Your task to perform on an android device: all mails in gmail Image 0: 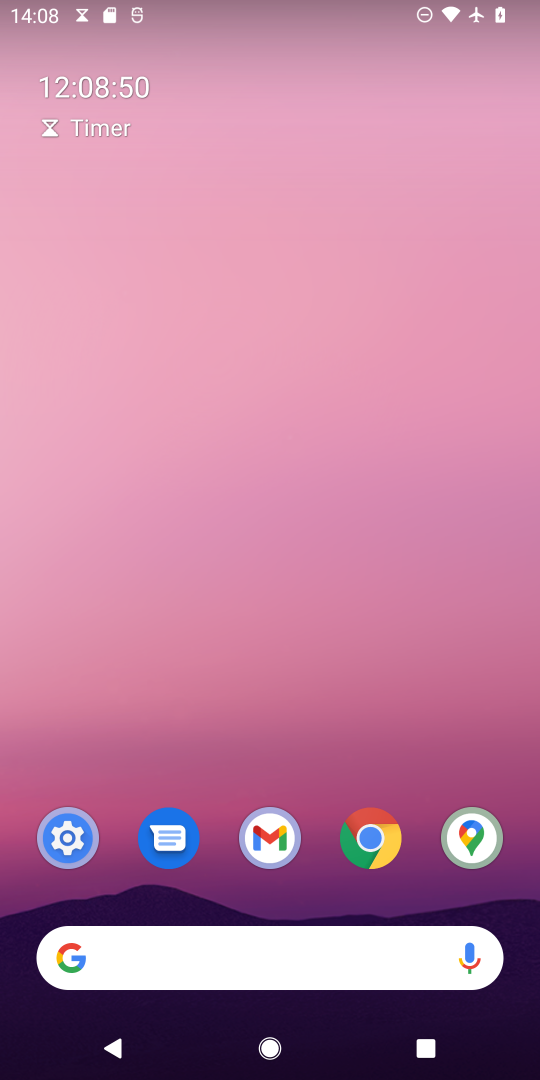
Step 0: press home button
Your task to perform on an android device: all mails in gmail Image 1: 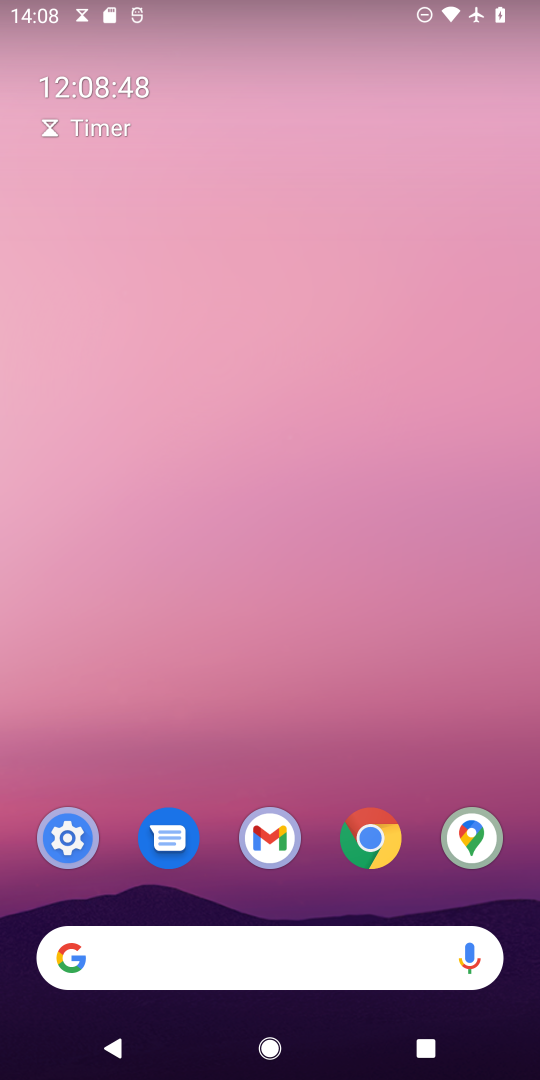
Step 1: click (272, 842)
Your task to perform on an android device: all mails in gmail Image 2: 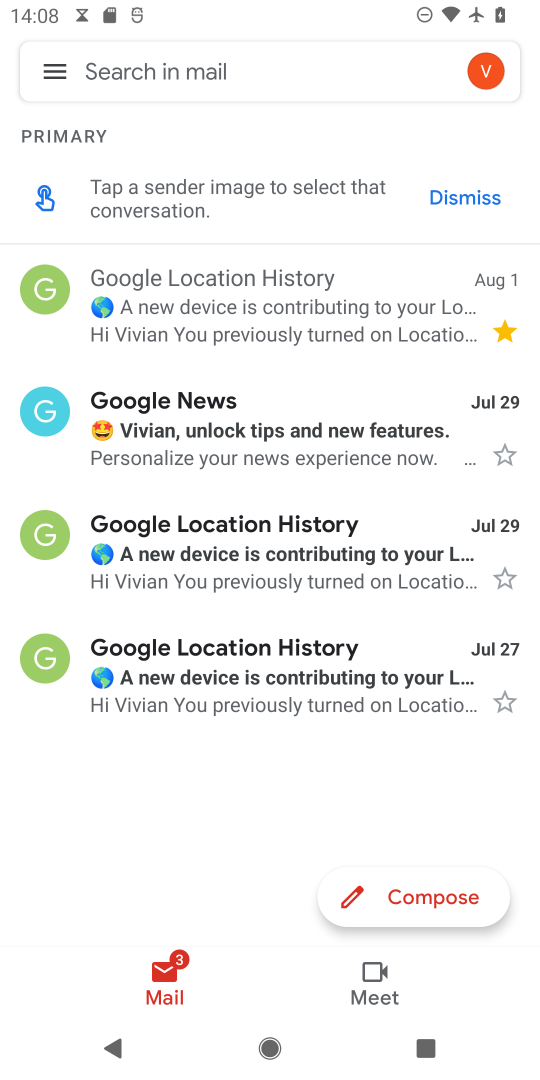
Step 2: click (61, 61)
Your task to perform on an android device: all mails in gmail Image 3: 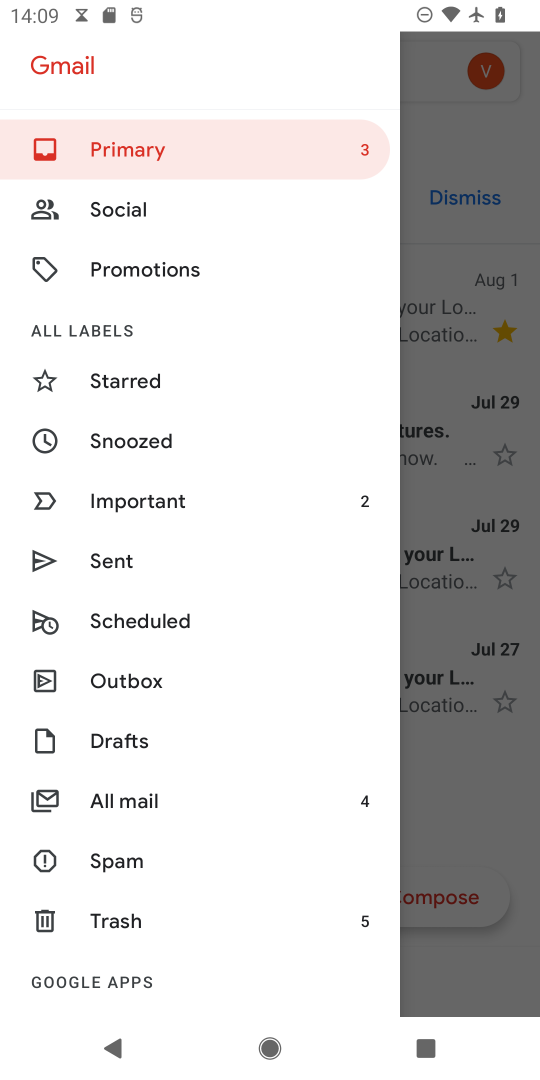
Step 3: click (119, 807)
Your task to perform on an android device: all mails in gmail Image 4: 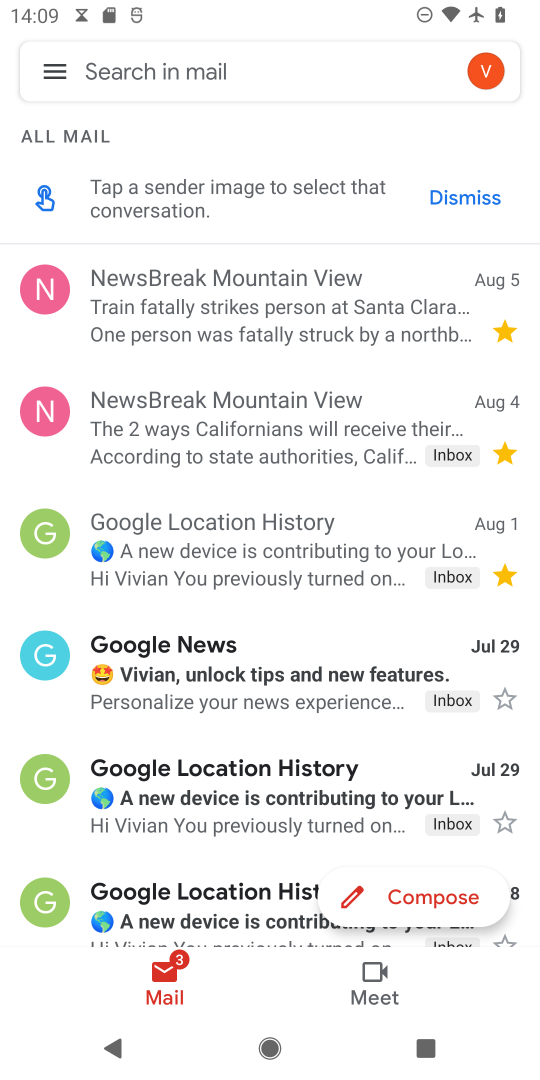
Step 4: task complete